Your task to perform on an android device: check data usage Image 0: 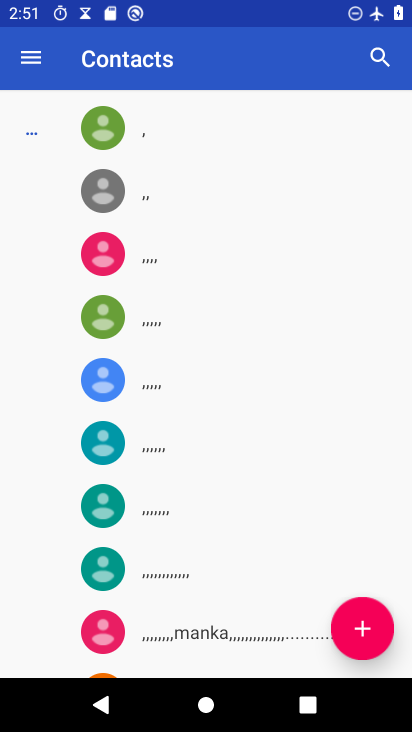
Step 0: press home button
Your task to perform on an android device: check data usage Image 1: 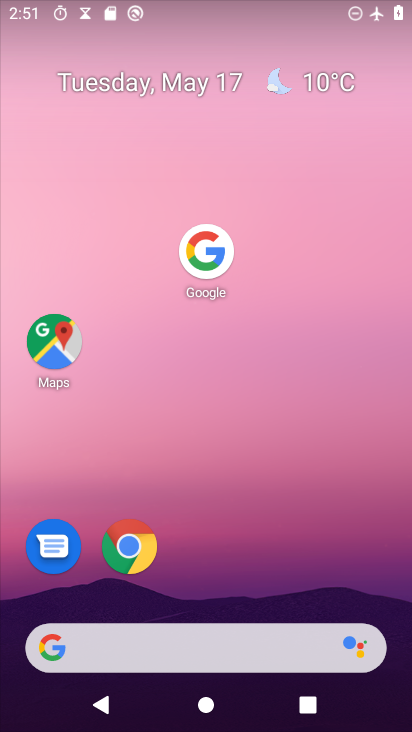
Step 1: drag from (165, 640) to (315, 15)
Your task to perform on an android device: check data usage Image 2: 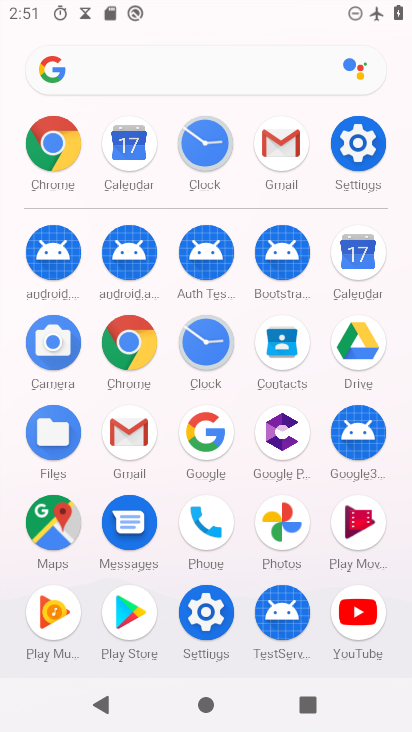
Step 2: click (363, 153)
Your task to perform on an android device: check data usage Image 3: 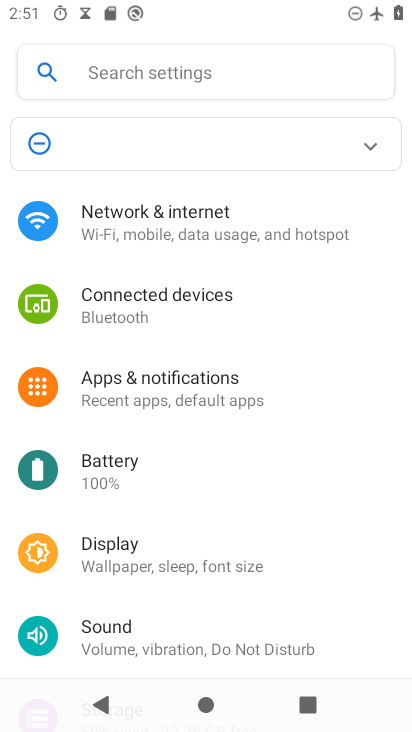
Step 3: click (195, 216)
Your task to perform on an android device: check data usage Image 4: 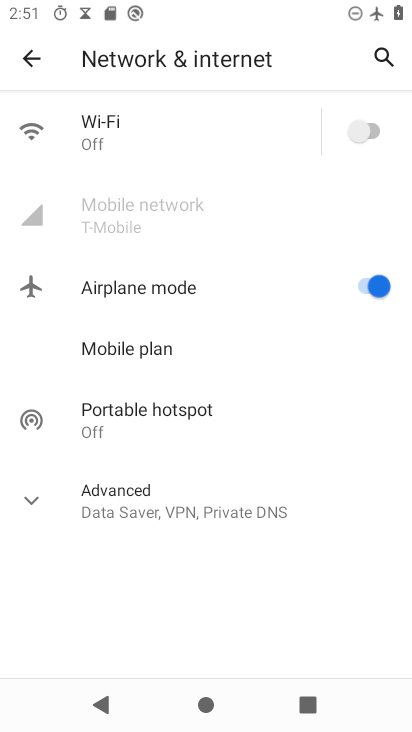
Step 4: click (113, 140)
Your task to perform on an android device: check data usage Image 5: 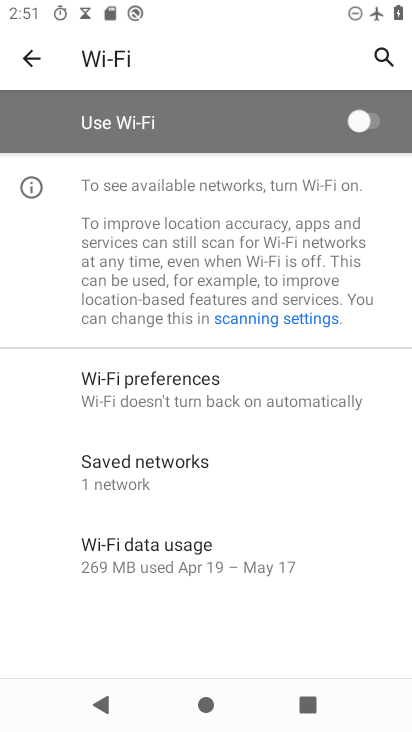
Step 5: click (171, 552)
Your task to perform on an android device: check data usage Image 6: 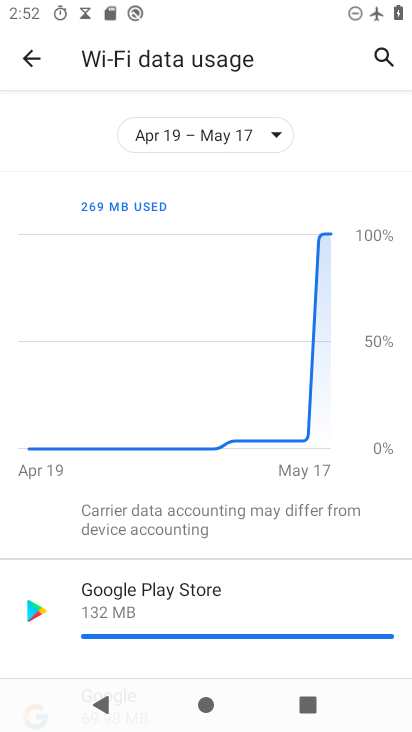
Step 6: task complete